Your task to perform on an android device: Open Chrome and go to settings Image 0: 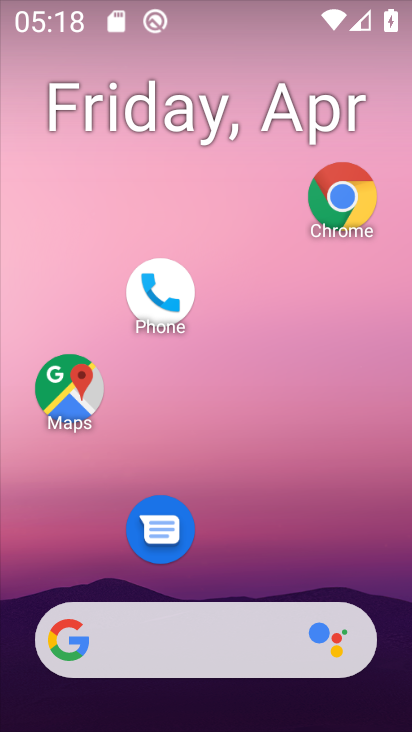
Step 0: drag from (228, 574) to (254, 104)
Your task to perform on an android device: Open Chrome and go to settings Image 1: 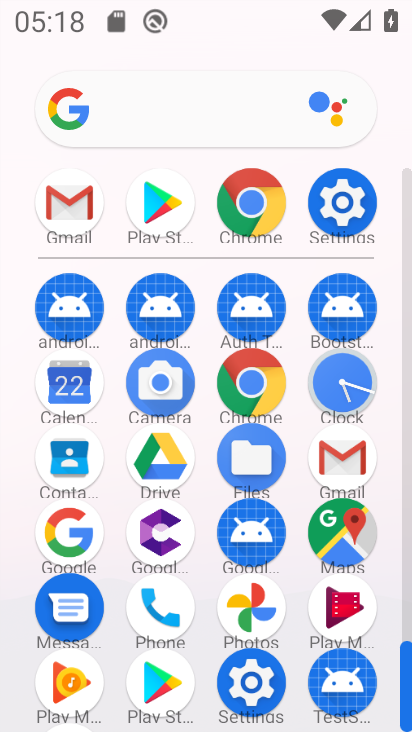
Step 1: click (340, 195)
Your task to perform on an android device: Open Chrome and go to settings Image 2: 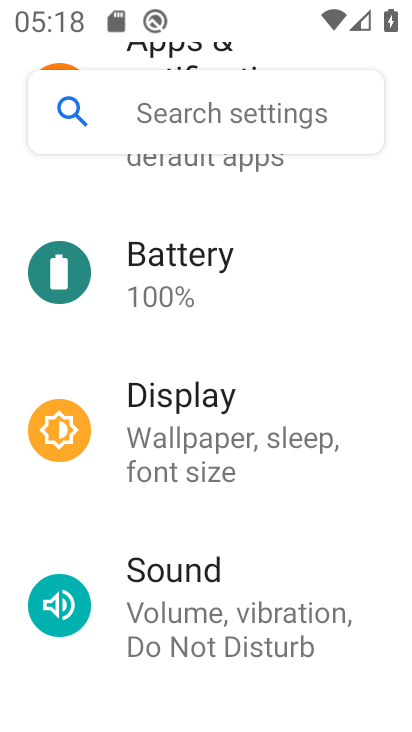
Step 2: press home button
Your task to perform on an android device: Open Chrome and go to settings Image 3: 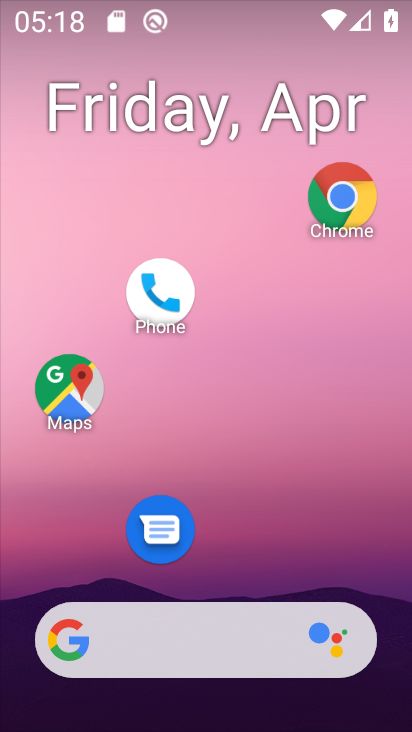
Step 3: drag from (238, 575) to (245, 68)
Your task to perform on an android device: Open Chrome and go to settings Image 4: 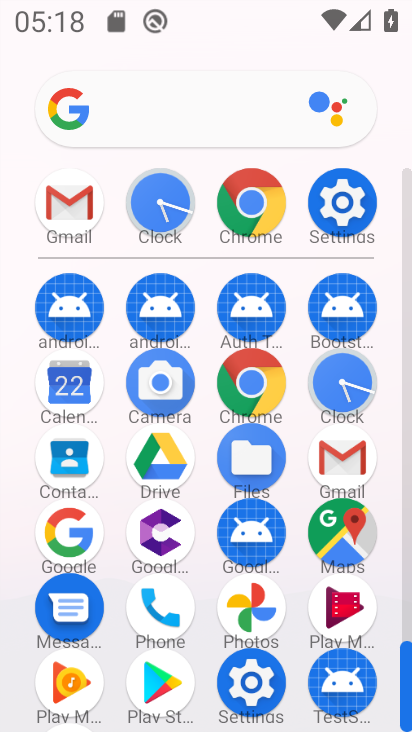
Step 4: click (341, 194)
Your task to perform on an android device: Open Chrome and go to settings Image 5: 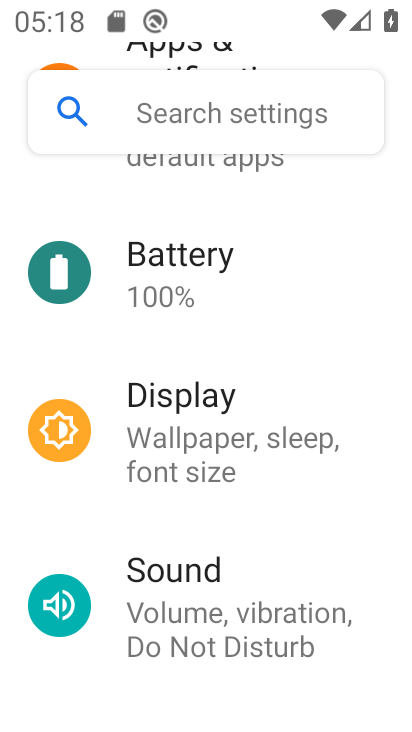
Step 5: press home button
Your task to perform on an android device: Open Chrome and go to settings Image 6: 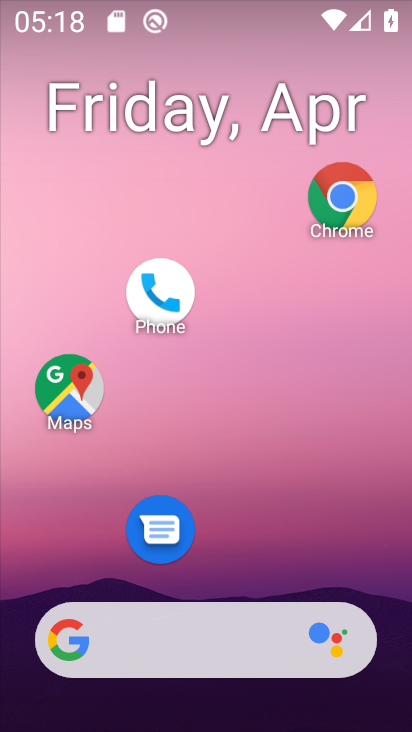
Step 6: click (342, 191)
Your task to perform on an android device: Open Chrome and go to settings Image 7: 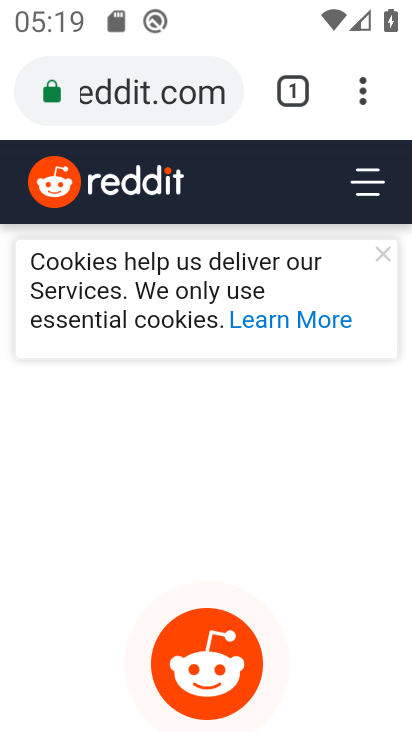
Step 7: click (364, 93)
Your task to perform on an android device: Open Chrome and go to settings Image 8: 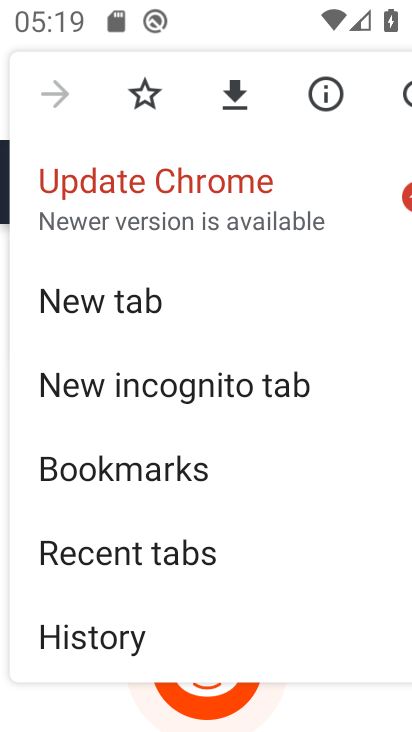
Step 8: drag from (198, 625) to (240, 158)
Your task to perform on an android device: Open Chrome and go to settings Image 9: 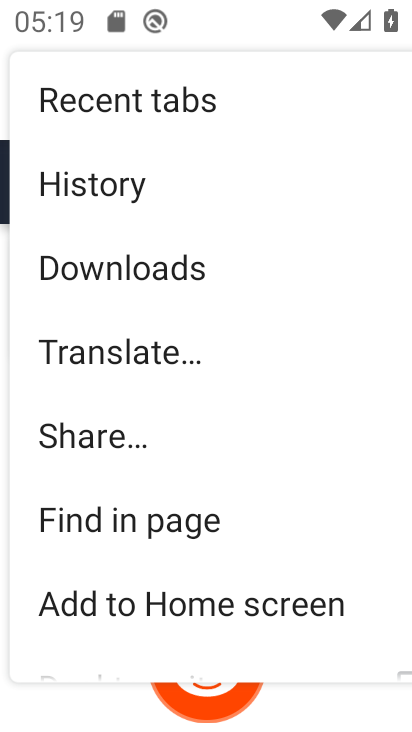
Step 9: drag from (189, 559) to (205, 48)
Your task to perform on an android device: Open Chrome and go to settings Image 10: 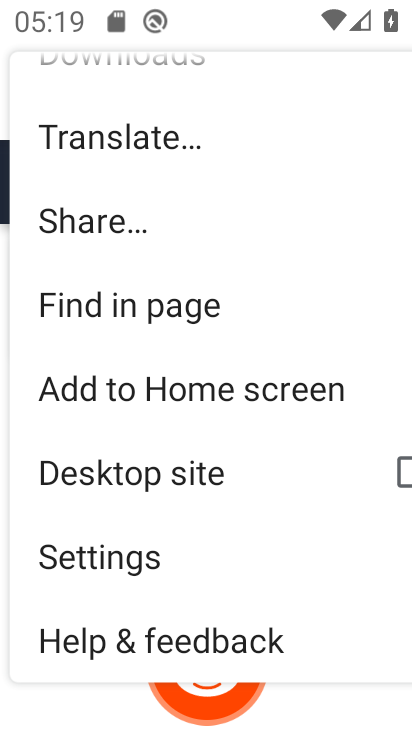
Step 10: click (173, 554)
Your task to perform on an android device: Open Chrome and go to settings Image 11: 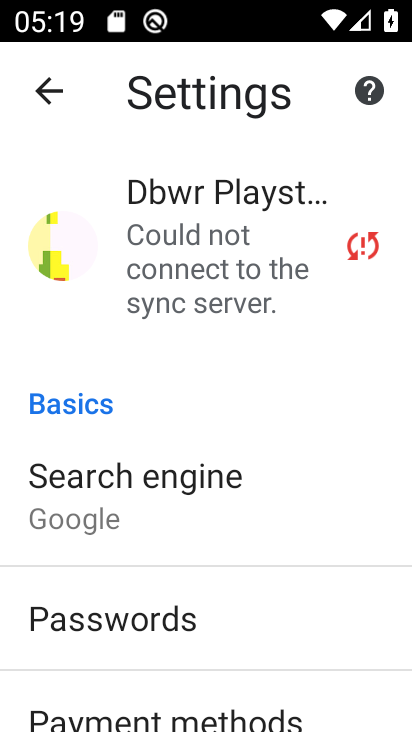
Step 11: drag from (224, 681) to (223, 336)
Your task to perform on an android device: Open Chrome and go to settings Image 12: 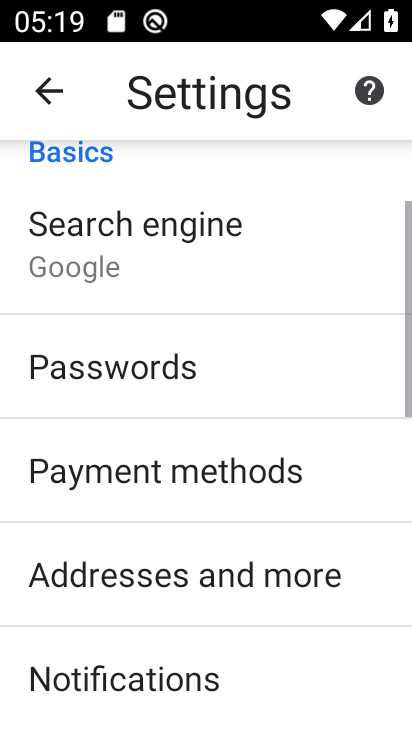
Step 12: click (226, 275)
Your task to perform on an android device: Open Chrome and go to settings Image 13: 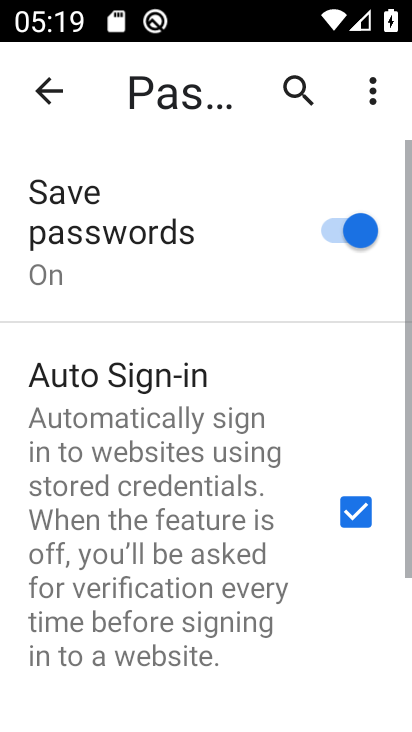
Step 13: task complete